Your task to perform on an android device: turn on javascript in the chrome app Image 0: 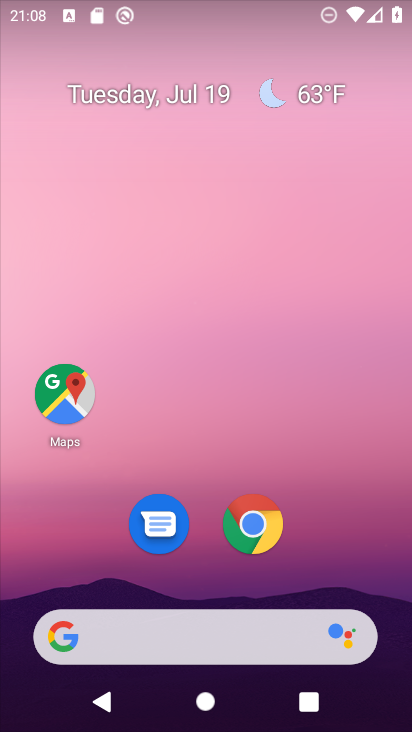
Step 0: click (256, 523)
Your task to perform on an android device: turn on javascript in the chrome app Image 1: 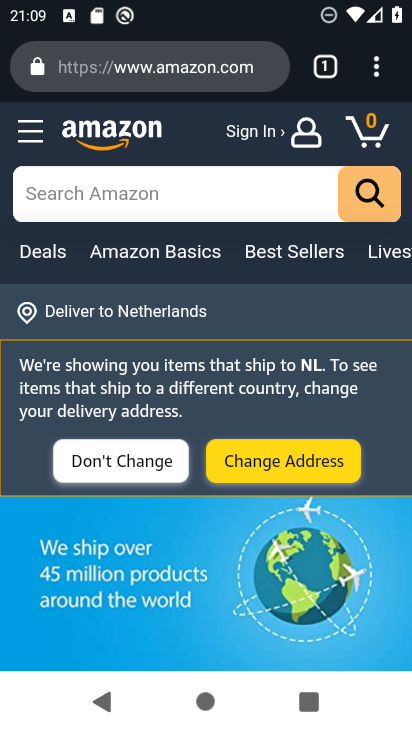
Step 1: click (377, 73)
Your task to perform on an android device: turn on javascript in the chrome app Image 2: 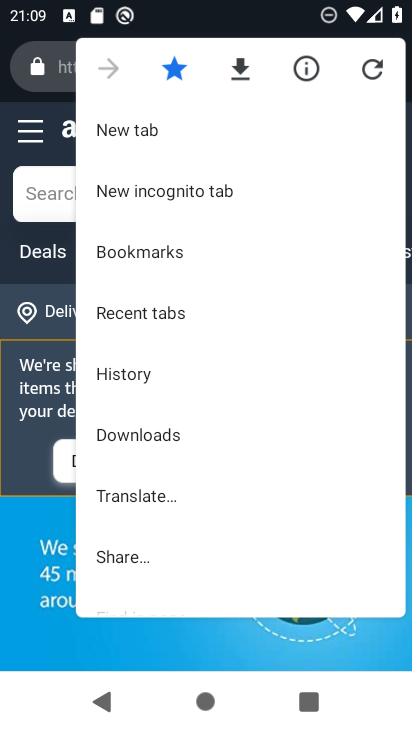
Step 2: drag from (227, 472) to (226, 140)
Your task to perform on an android device: turn on javascript in the chrome app Image 3: 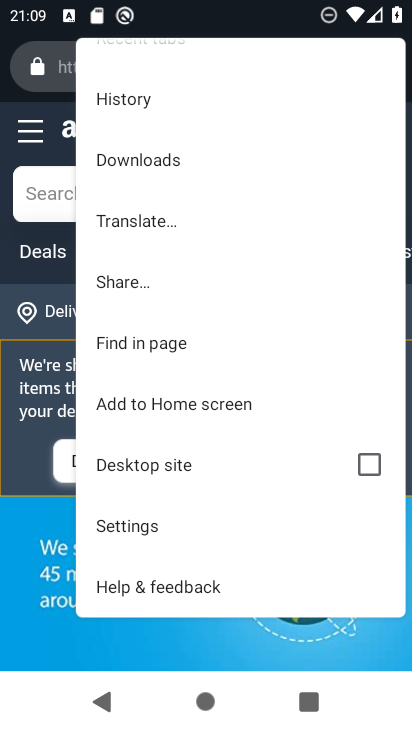
Step 3: click (154, 522)
Your task to perform on an android device: turn on javascript in the chrome app Image 4: 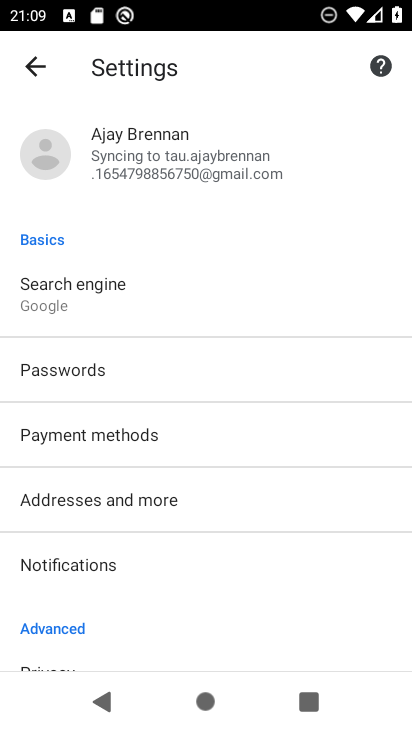
Step 4: drag from (248, 517) to (252, 275)
Your task to perform on an android device: turn on javascript in the chrome app Image 5: 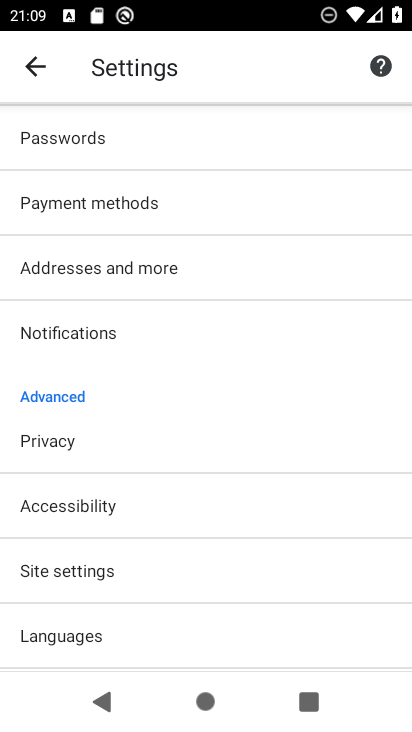
Step 5: click (93, 577)
Your task to perform on an android device: turn on javascript in the chrome app Image 6: 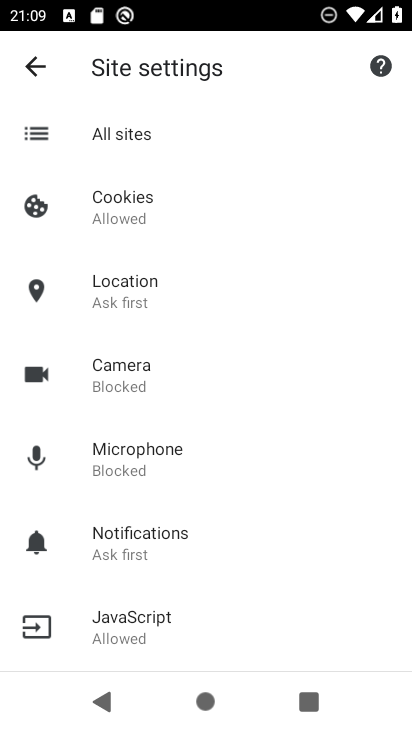
Step 6: click (156, 629)
Your task to perform on an android device: turn on javascript in the chrome app Image 7: 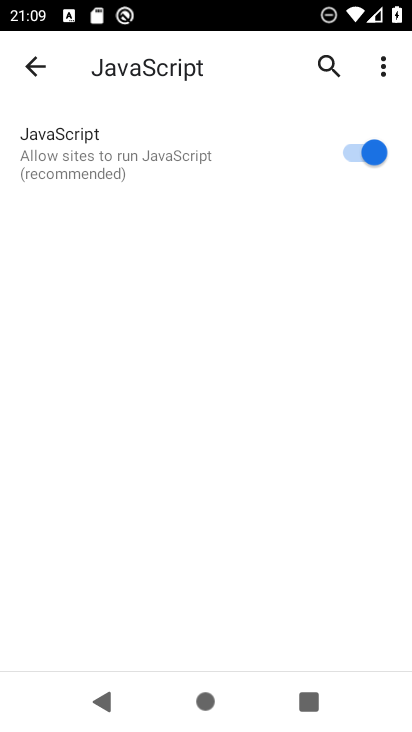
Step 7: task complete